Your task to perform on an android device: Open the stopwatch Image 0: 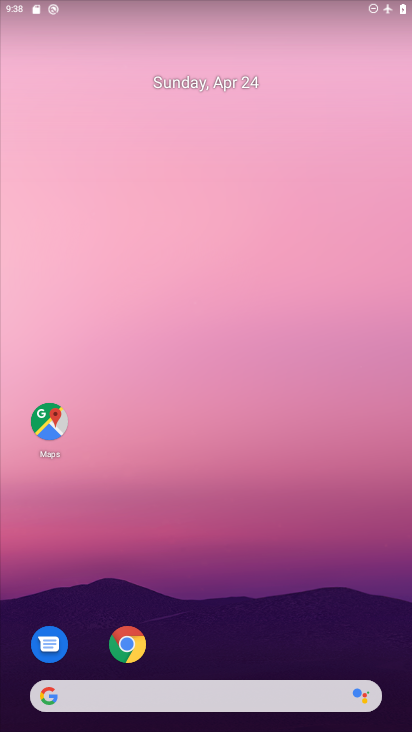
Step 0: drag from (227, 648) to (169, 13)
Your task to perform on an android device: Open the stopwatch Image 1: 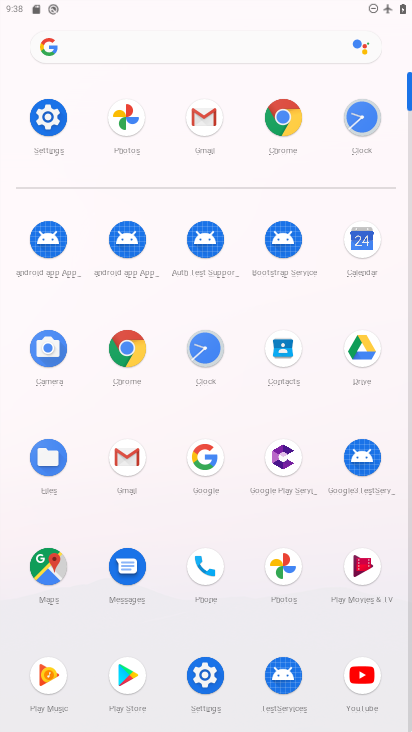
Step 1: click (215, 355)
Your task to perform on an android device: Open the stopwatch Image 2: 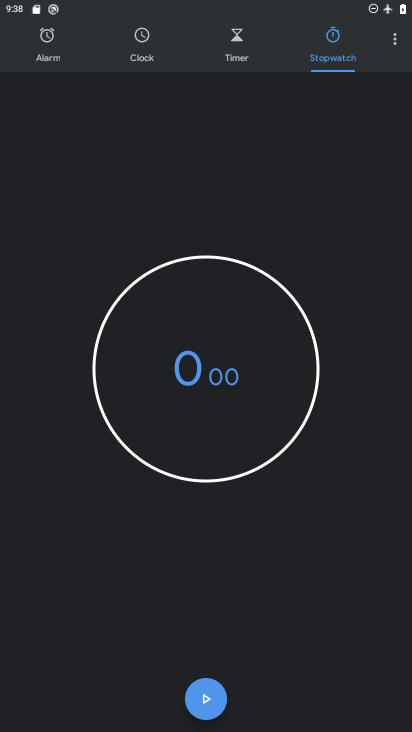
Step 2: click (214, 689)
Your task to perform on an android device: Open the stopwatch Image 3: 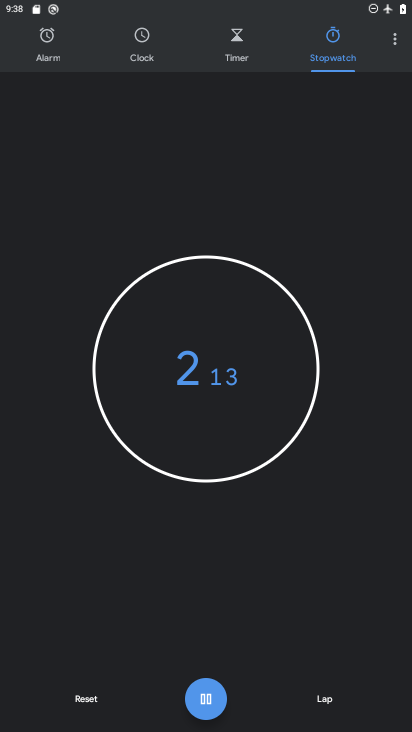
Step 3: click (200, 707)
Your task to perform on an android device: Open the stopwatch Image 4: 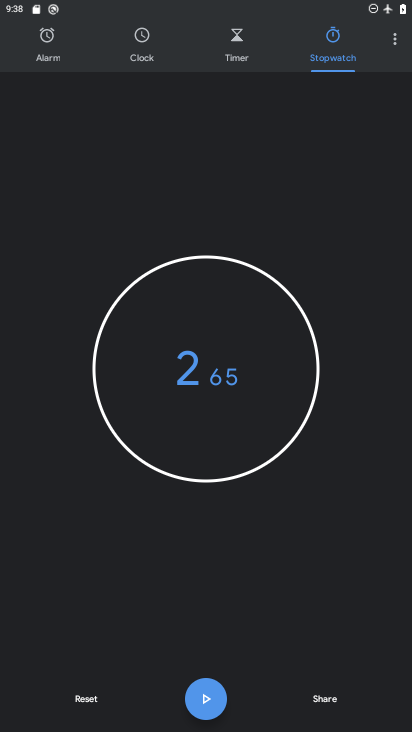
Step 4: task complete